Your task to perform on an android device: allow cookies in the chrome app Image 0: 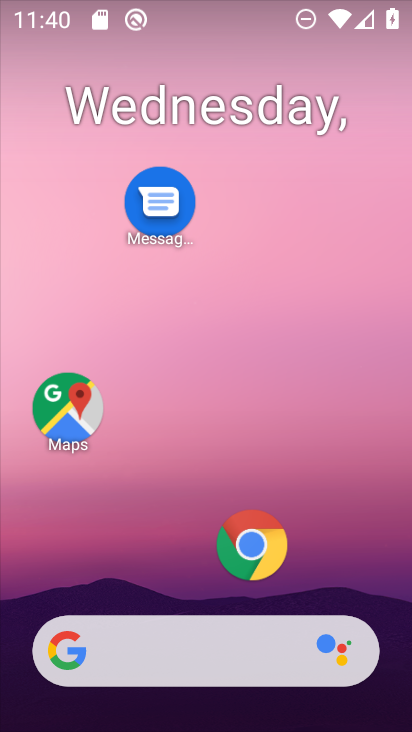
Step 0: click (260, 564)
Your task to perform on an android device: allow cookies in the chrome app Image 1: 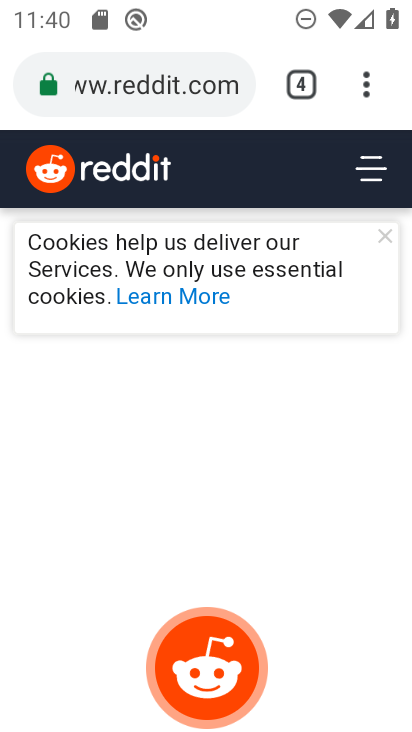
Step 1: drag from (368, 83) to (101, 603)
Your task to perform on an android device: allow cookies in the chrome app Image 2: 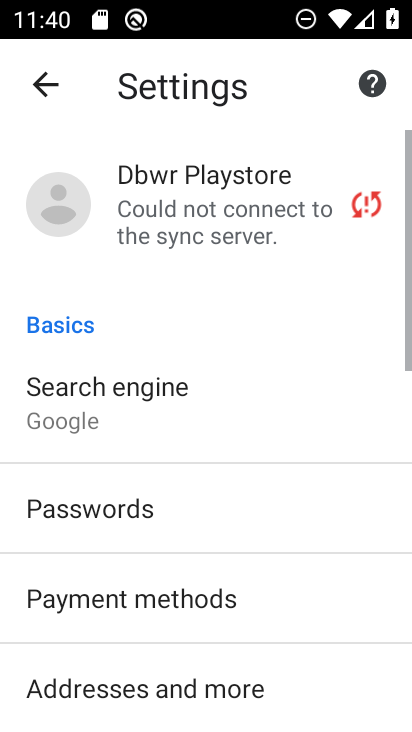
Step 2: drag from (174, 613) to (205, 347)
Your task to perform on an android device: allow cookies in the chrome app Image 3: 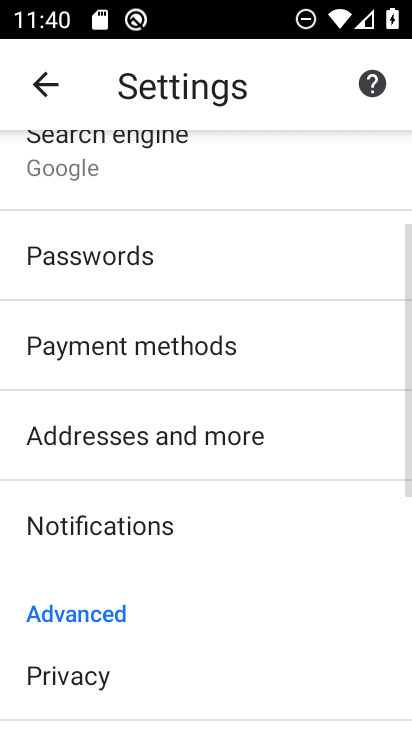
Step 3: drag from (204, 610) to (254, 349)
Your task to perform on an android device: allow cookies in the chrome app Image 4: 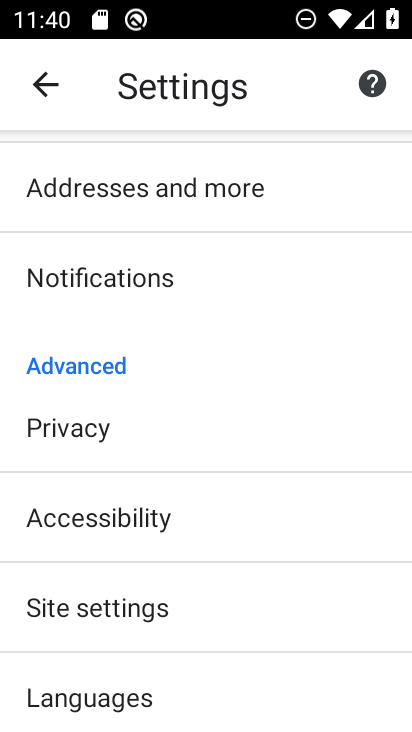
Step 4: click (149, 605)
Your task to perform on an android device: allow cookies in the chrome app Image 5: 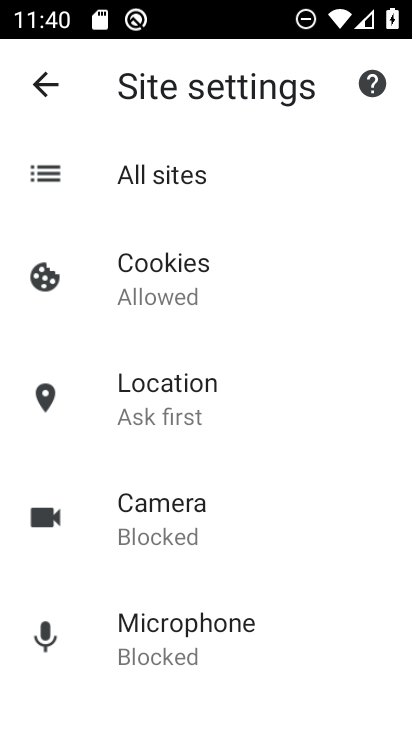
Step 5: click (185, 299)
Your task to perform on an android device: allow cookies in the chrome app Image 6: 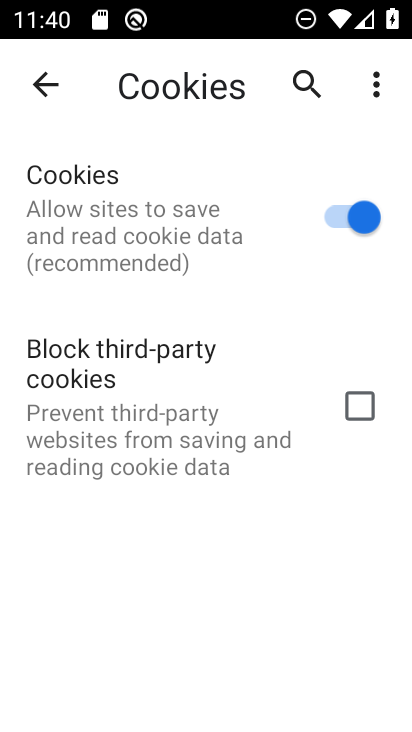
Step 6: task complete